Your task to perform on an android device: Go to ESPN.com Image 0: 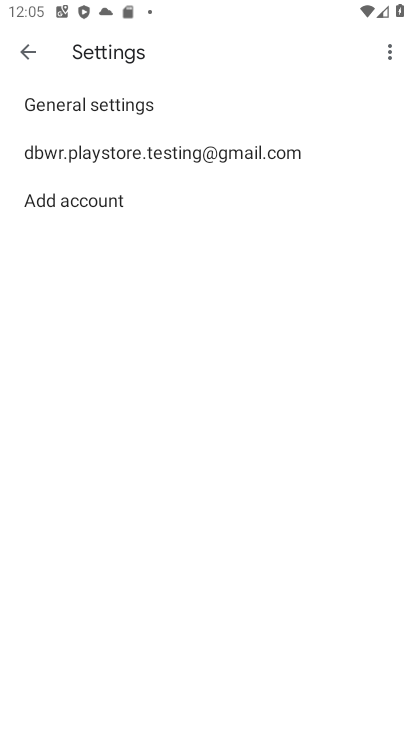
Step 0: task complete